Your task to perform on an android device: uninstall "Reddit" Image 0: 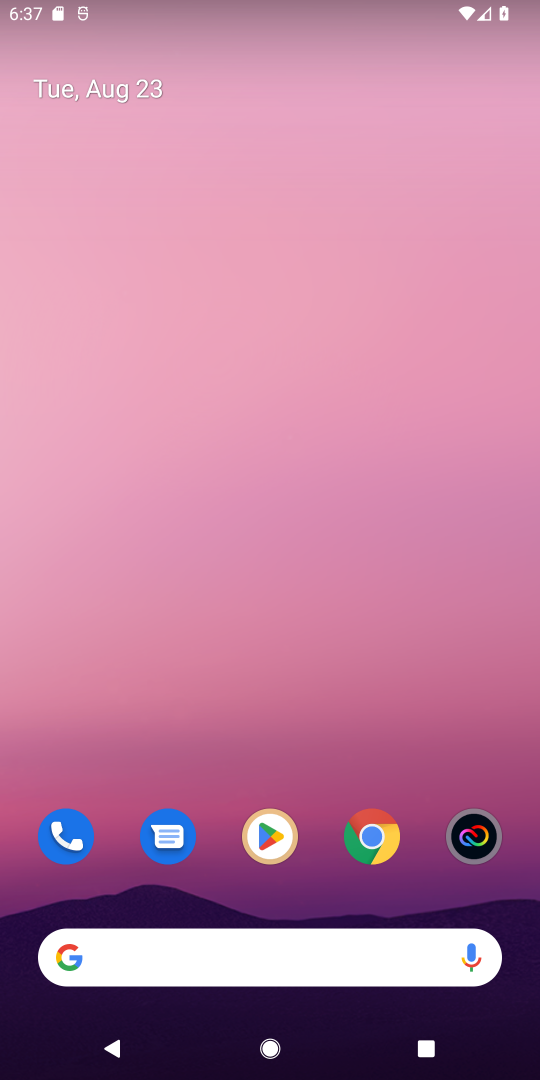
Step 0: click (270, 841)
Your task to perform on an android device: uninstall "Reddit" Image 1: 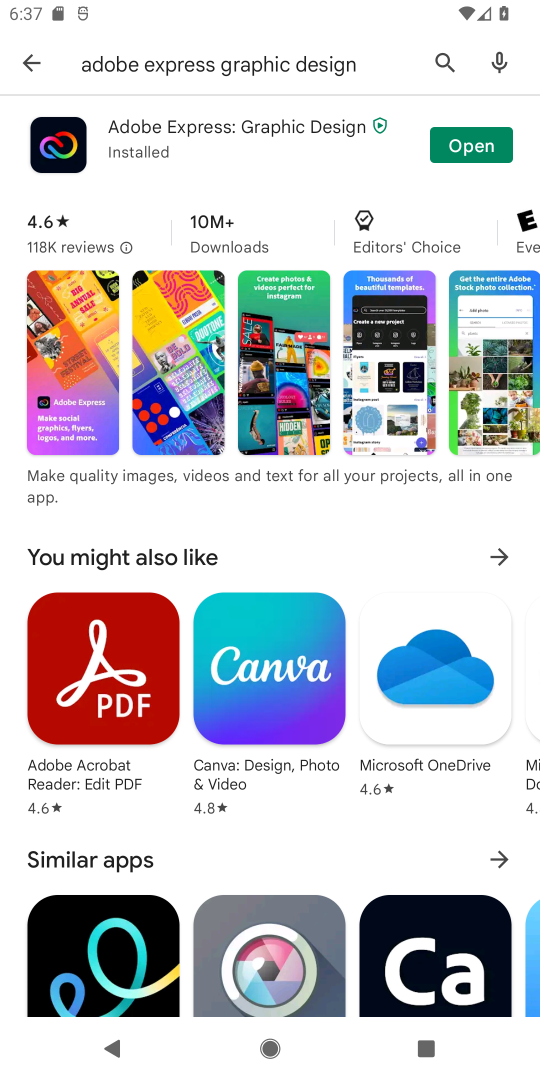
Step 1: click (437, 59)
Your task to perform on an android device: uninstall "Reddit" Image 2: 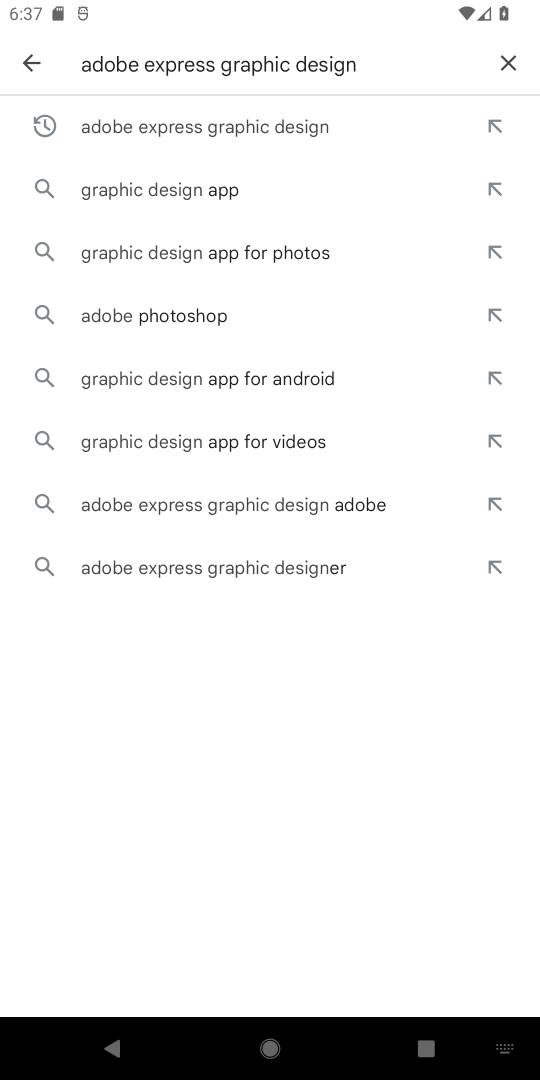
Step 2: click (501, 52)
Your task to perform on an android device: uninstall "Reddit" Image 3: 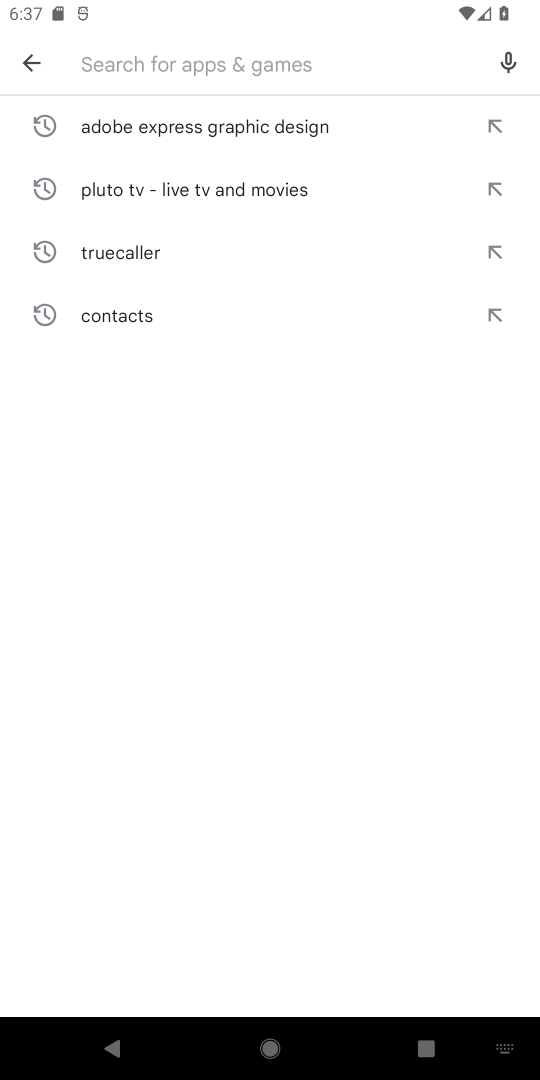
Step 3: type "Reddit"
Your task to perform on an android device: uninstall "Reddit" Image 4: 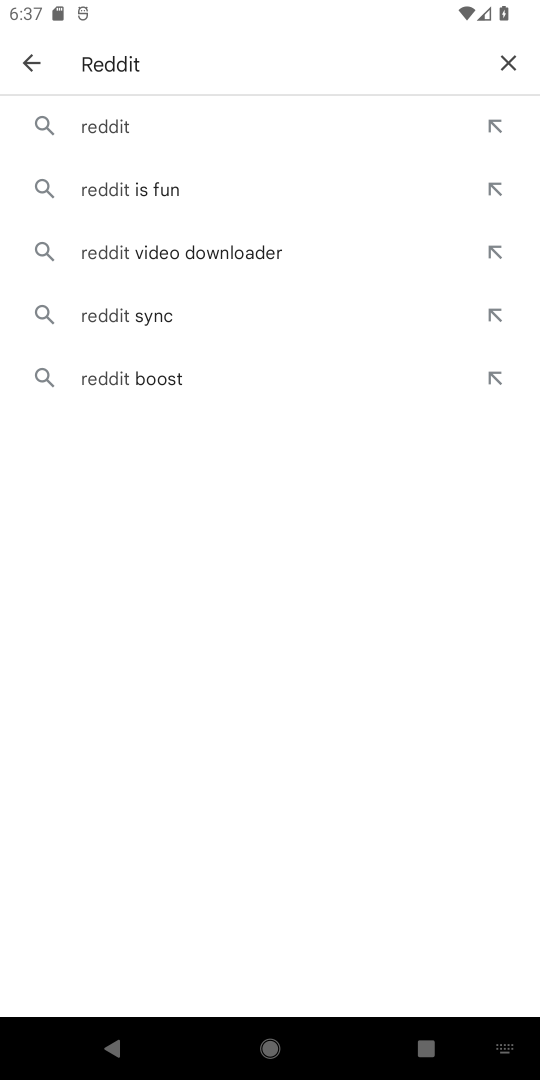
Step 4: click (118, 121)
Your task to perform on an android device: uninstall "Reddit" Image 5: 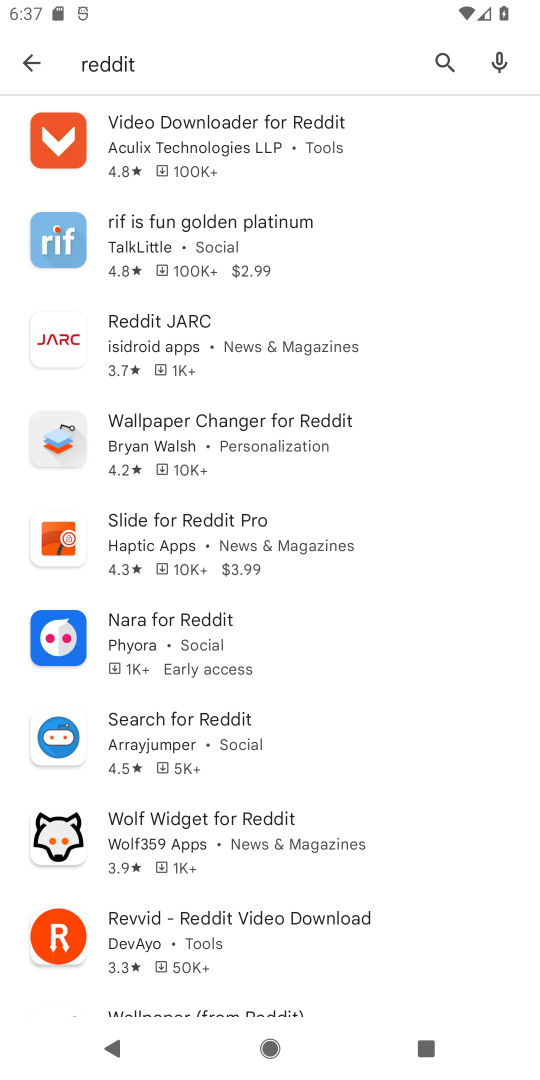
Step 5: task complete